Your task to perform on an android device: Search for "macbook pro 13 inch" on bestbuy, select the first entry, add it to the cart, then select checkout. Image 0: 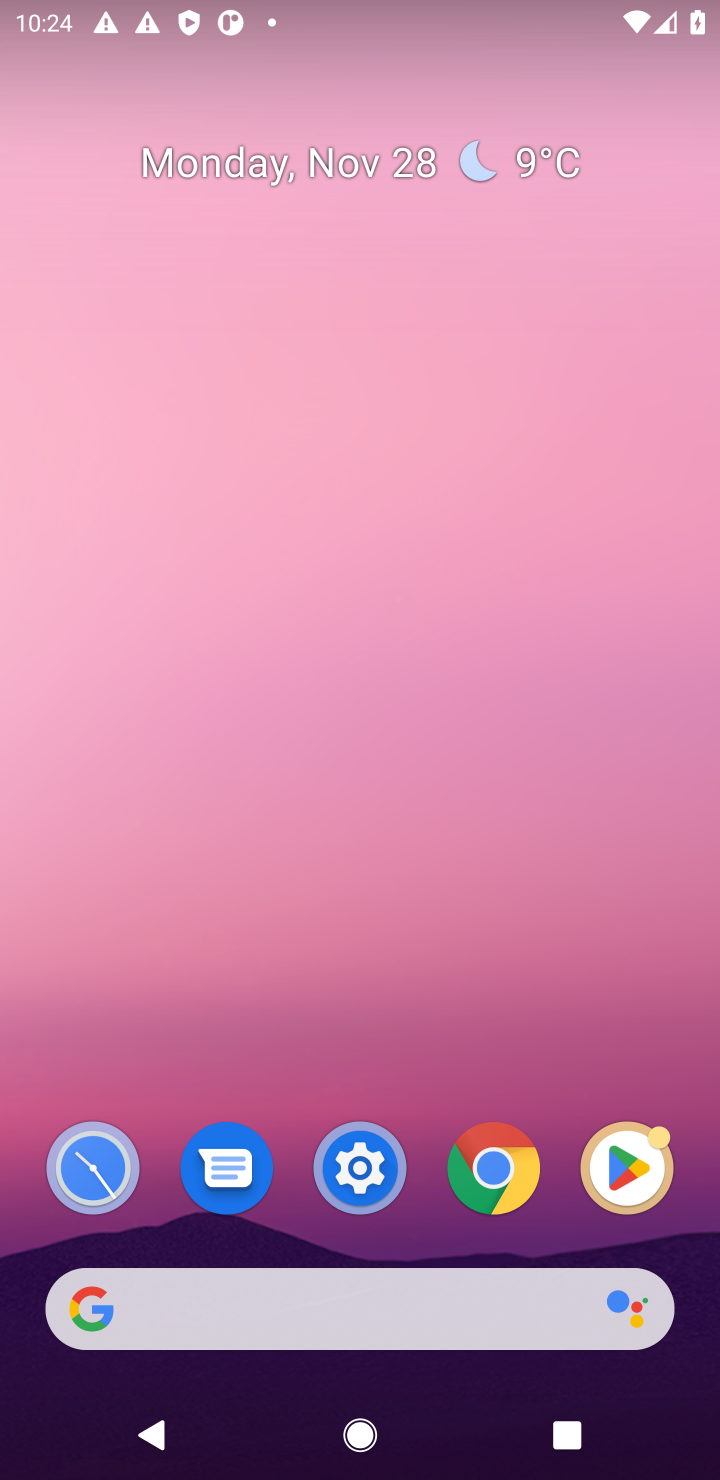
Step 0: click (428, 1306)
Your task to perform on an android device: Search for "macbook pro 13 inch" on bestbuy, select the first entry, add it to the cart, then select checkout. Image 1: 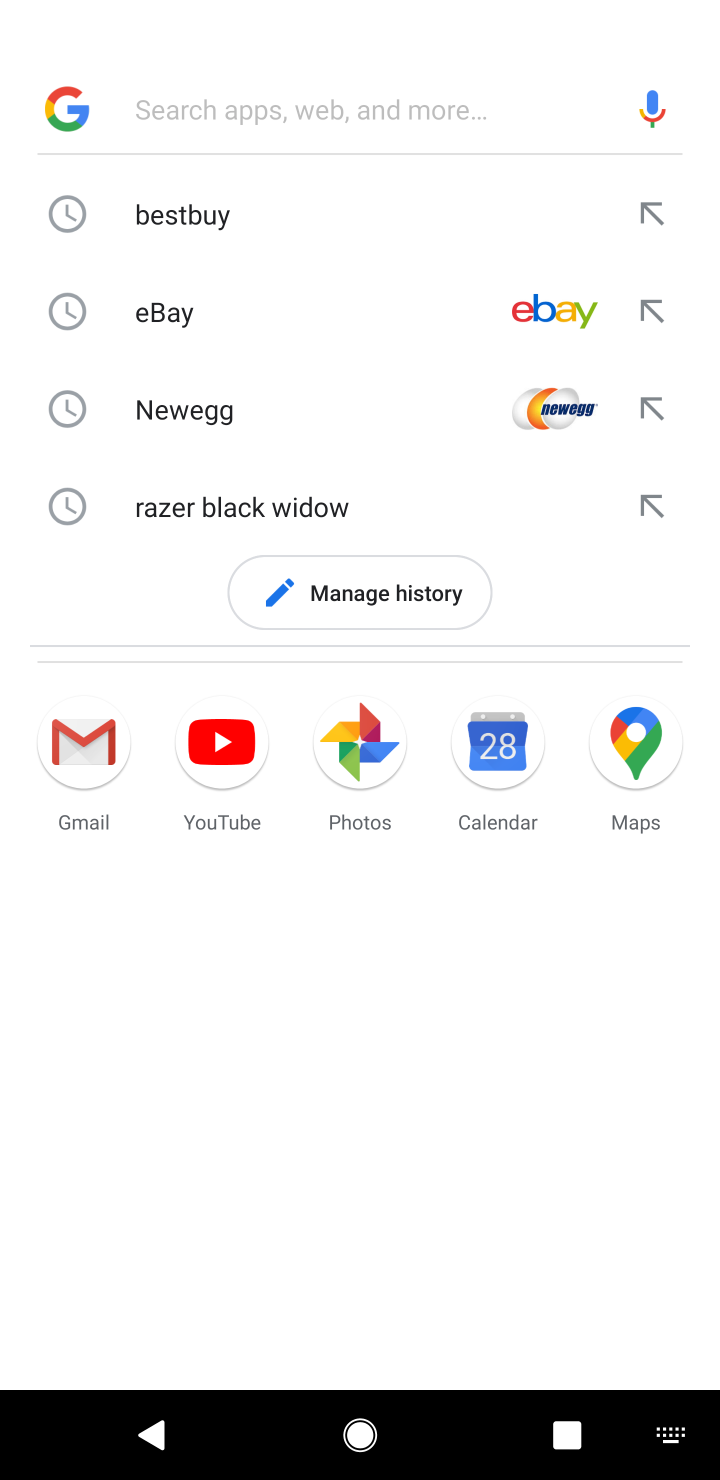
Step 1: type "best"
Your task to perform on an android device: Search for "macbook pro 13 inch" on bestbuy, select the first entry, add it to the cart, then select checkout. Image 2: 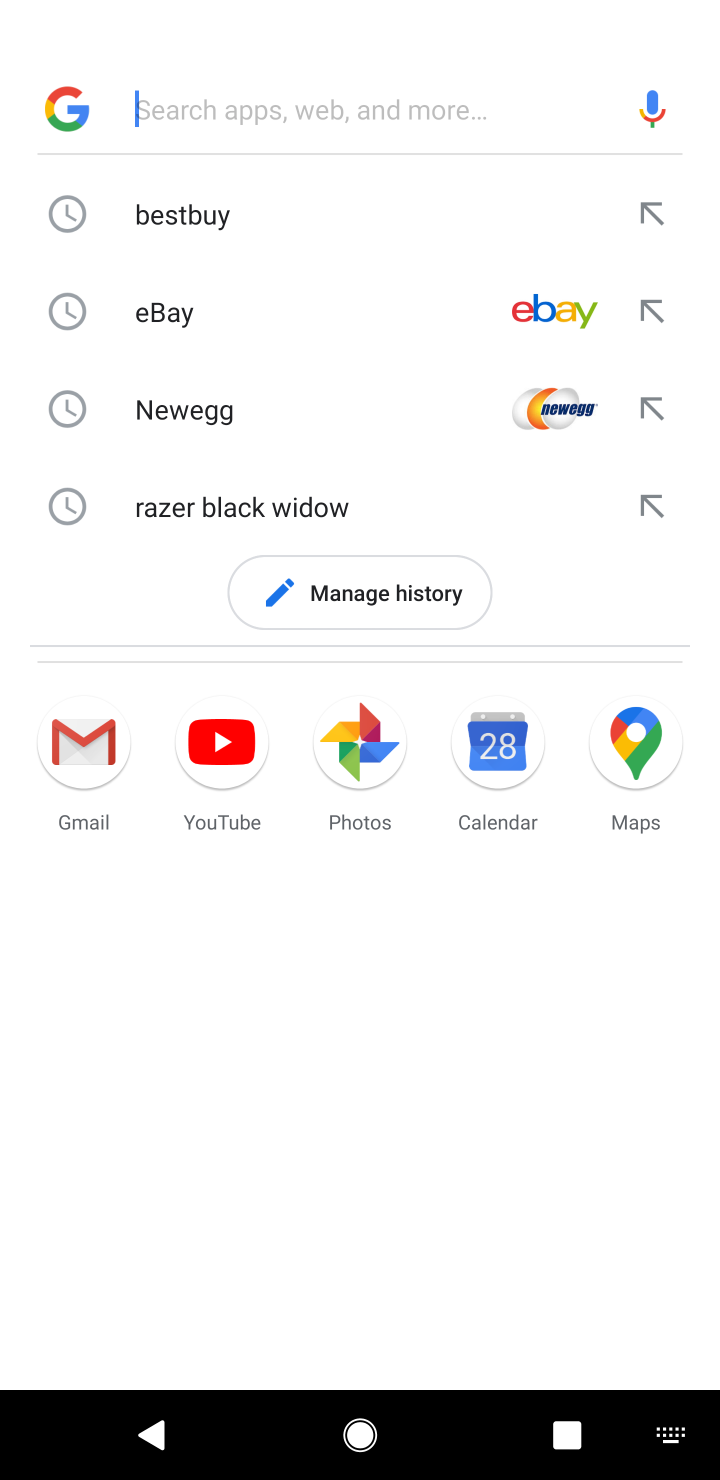
Step 2: click (159, 226)
Your task to perform on an android device: Search for "macbook pro 13 inch" on bestbuy, select the first entry, add it to the cart, then select checkout. Image 3: 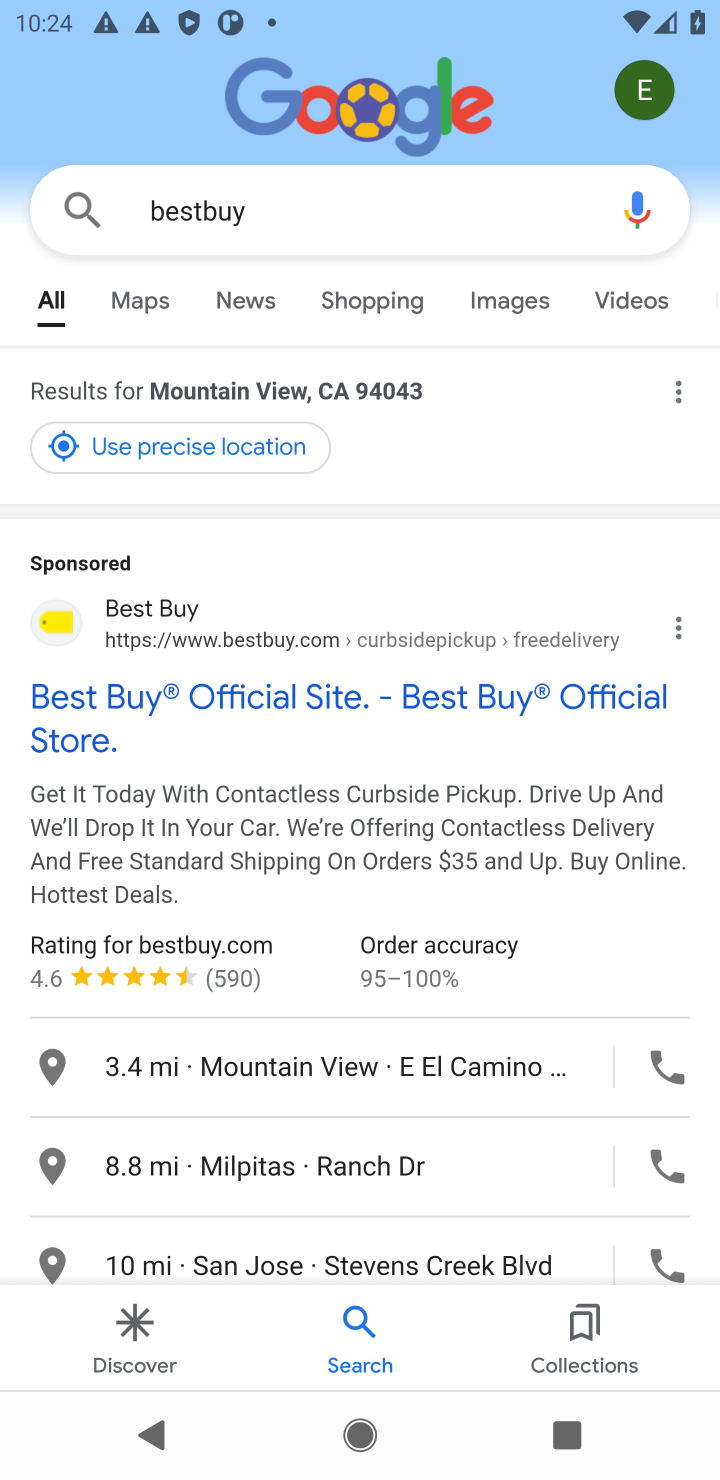
Step 3: click (115, 738)
Your task to perform on an android device: Search for "macbook pro 13 inch" on bestbuy, select the first entry, add it to the cart, then select checkout. Image 4: 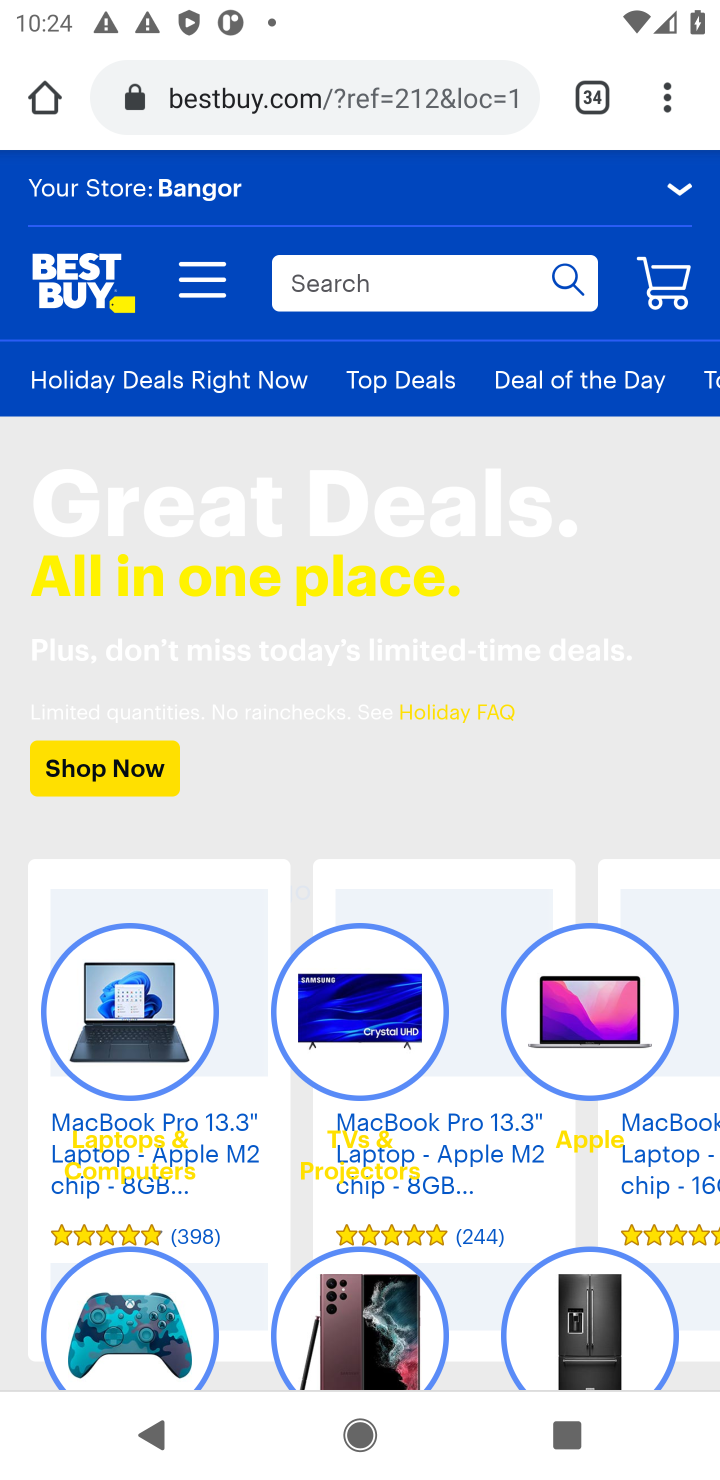
Step 4: task complete